Your task to perform on an android device: Go to network settings Image 0: 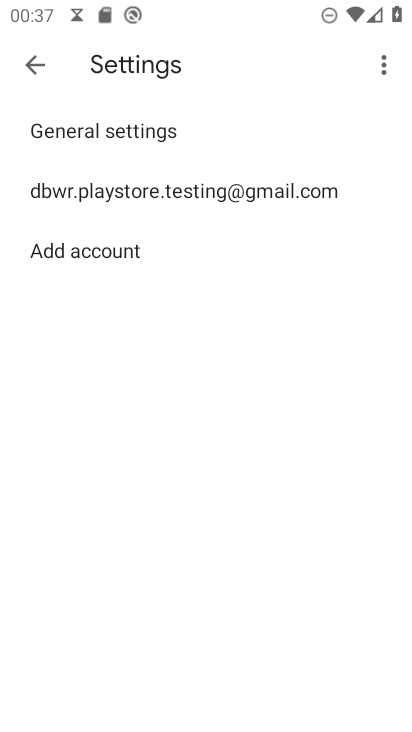
Step 0: press home button
Your task to perform on an android device: Go to network settings Image 1: 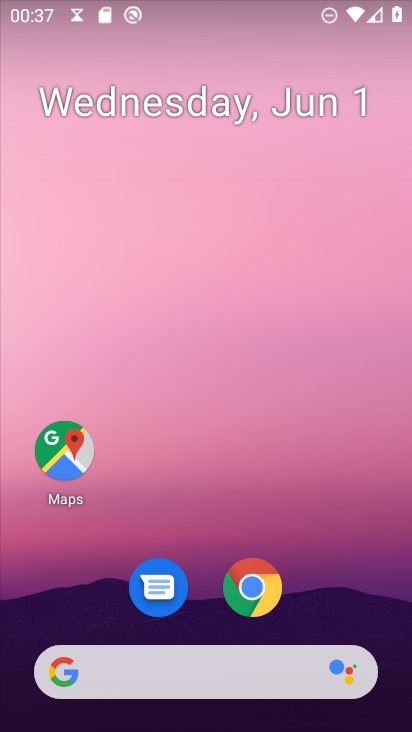
Step 1: drag from (350, 615) to (352, 0)
Your task to perform on an android device: Go to network settings Image 2: 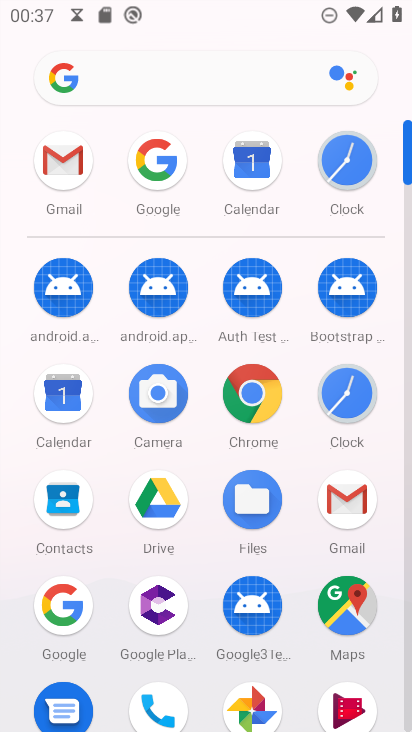
Step 2: drag from (204, 520) to (205, 44)
Your task to perform on an android device: Go to network settings Image 3: 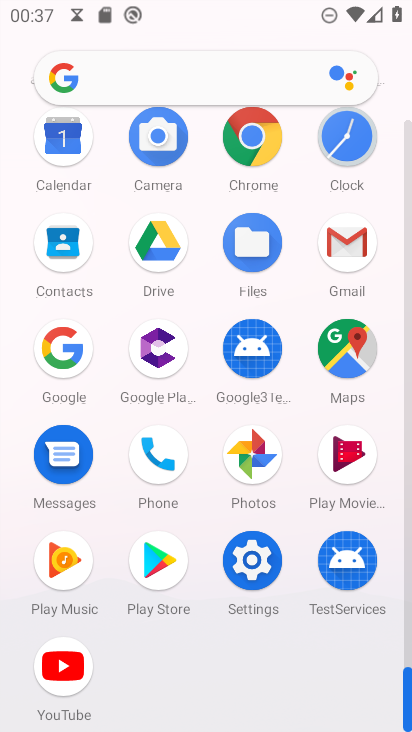
Step 3: click (258, 564)
Your task to perform on an android device: Go to network settings Image 4: 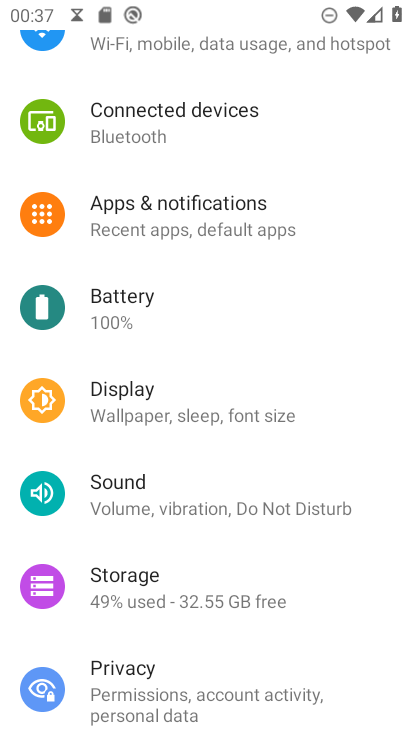
Step 4: drag from (223, 170) to (346, 722)
Your task to perform on an android device: Go to network settings Image 5: 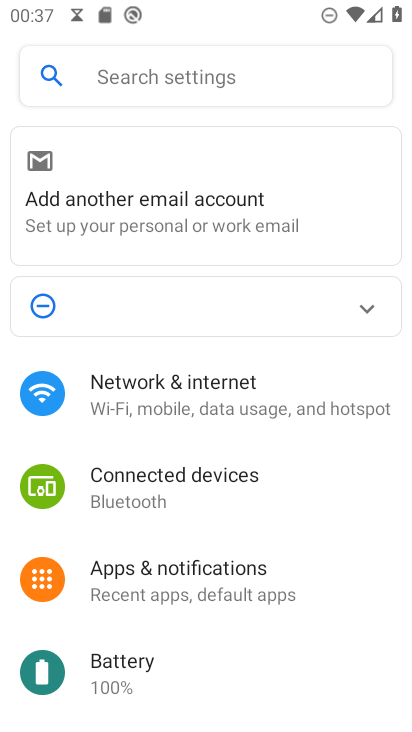
Step 5: click (146, 407)
Your task to perform on an android device: Go to network settings Image 6: 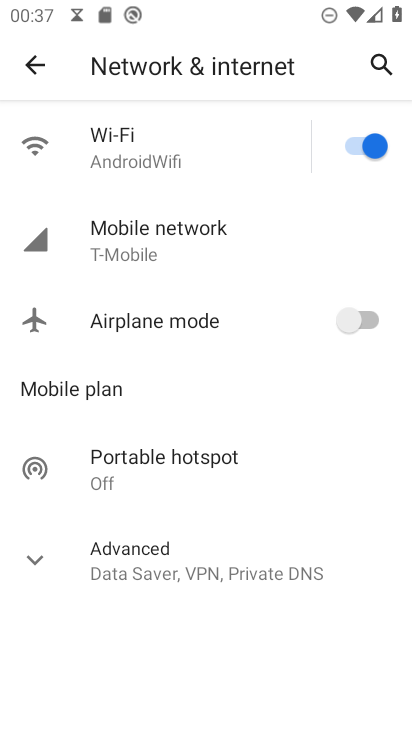
Step 6: click (156, 250)
Your task to perform on an android device: Go to network settings Image 7: 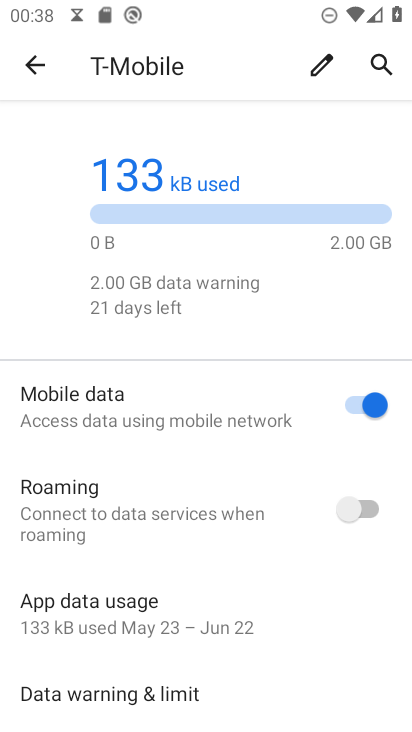
Step 7: task complete